Your task to perform on an android device: Open the web browser Image 0: 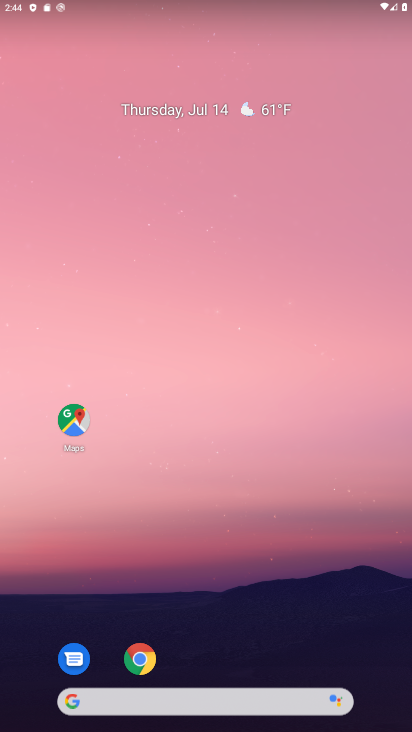
Step 0: click (137, 659)
Your task to perform on an android device: Open the web browser Image 1: 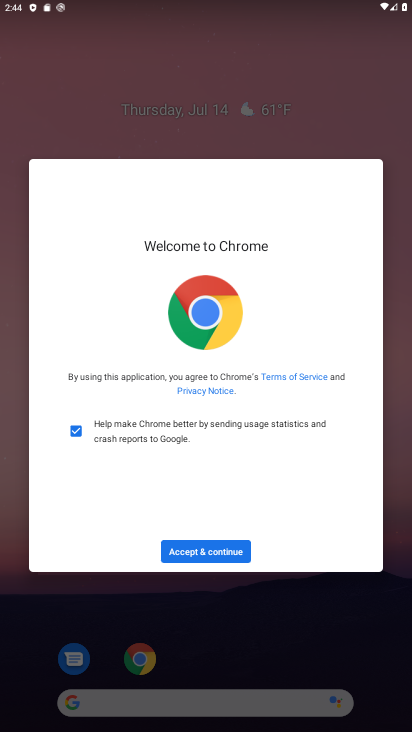
Step 1: click (204, 544)
Your task to perform on an android device: Open the web browser Image 2: 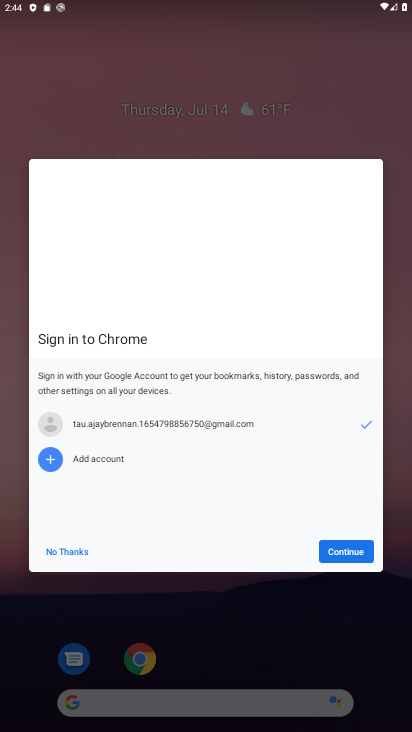
Step 2: click (342, 548)
Your task to perform on an android device: Open the web browser Image 3: 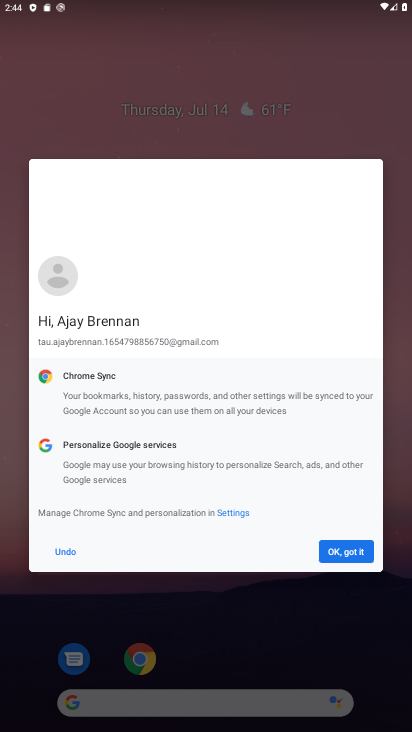
Step 3: click (348, 549)
Your task to perform on an android device: Open the web browser Image 4: 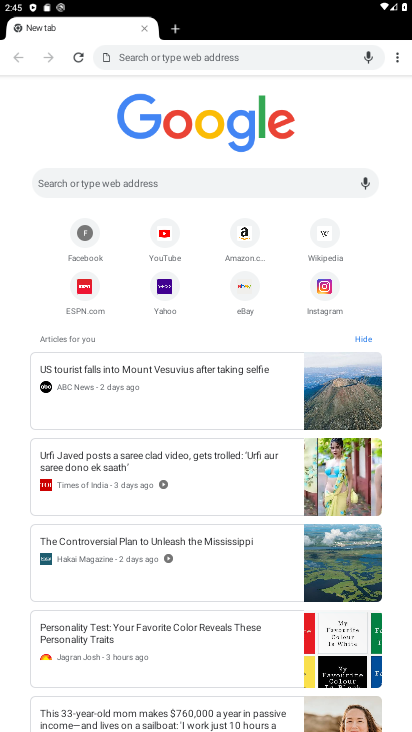
Step 4: task complete